Your task to perform on an android device: Open battery settings Image 0: 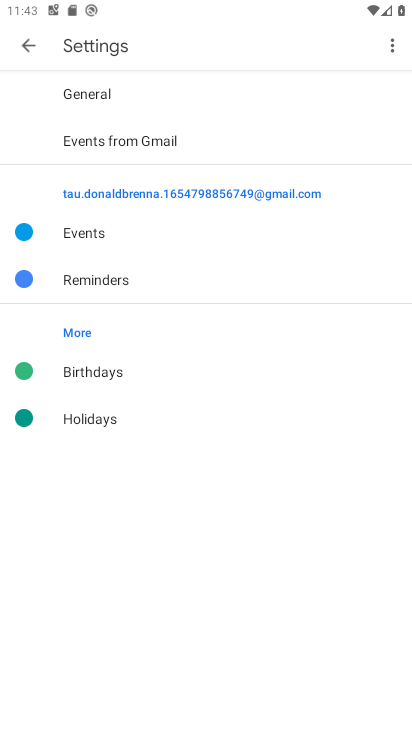
Step 0: press home button
Your task to perform on an android device: Open battery settings Image 1: 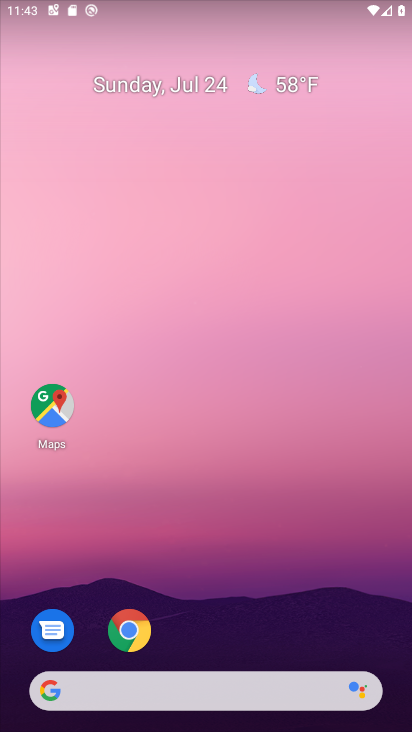
Step 1: drag from (199, 510) to (142, 7)
Your task to perform on an android device: Open battery settings Image 2: 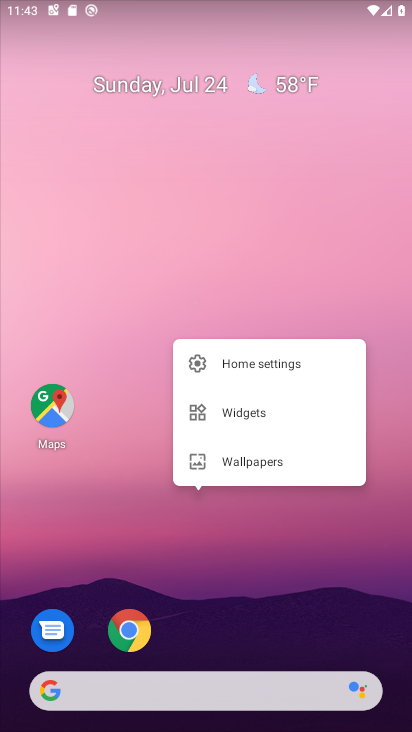
Step 2: click (230, 559)
Your task to perform on an android device: Open battery settings Image 3: 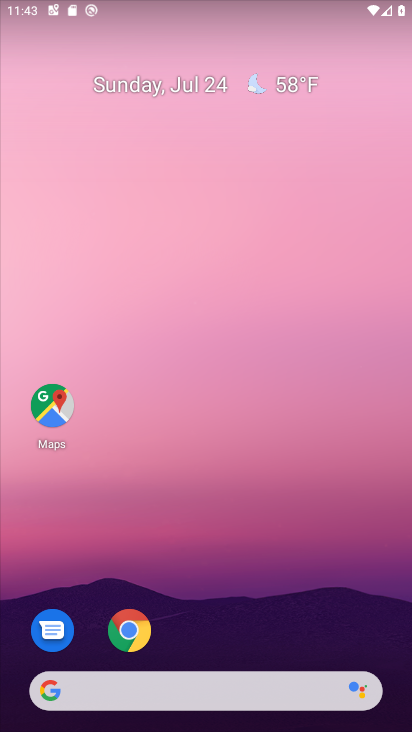
Step 3: drag from (197, 582) to (203, 219)
Your task to perform on an android device: Open battery settings Image 4: 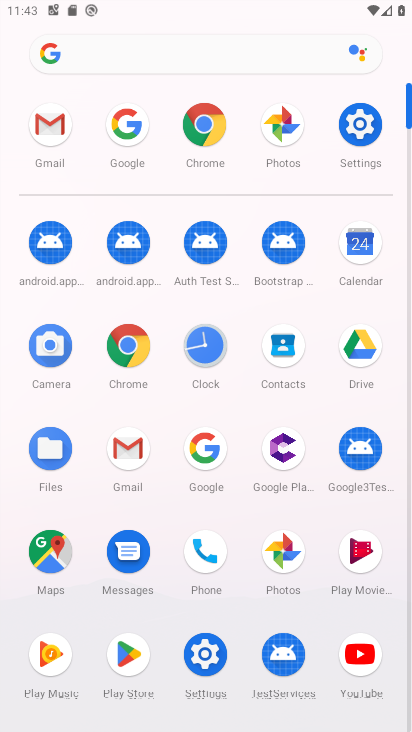
Step 4: click (356, 117)
Your task to perform on an android device: Open battery settings Image 5: 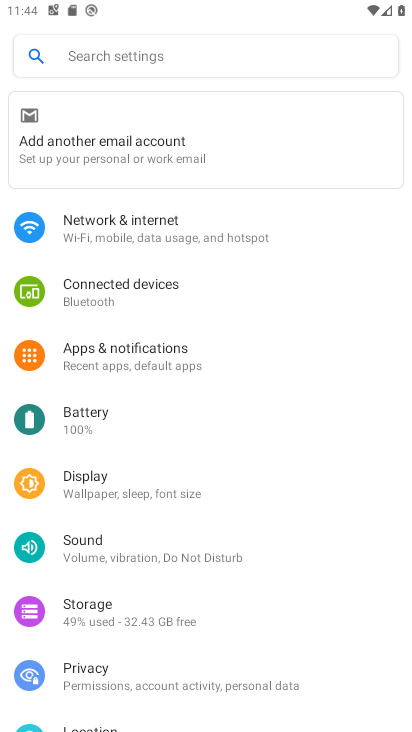
Step 5: click (104, 405)
Your task to perform on an android device: Open battery settings Image 6: 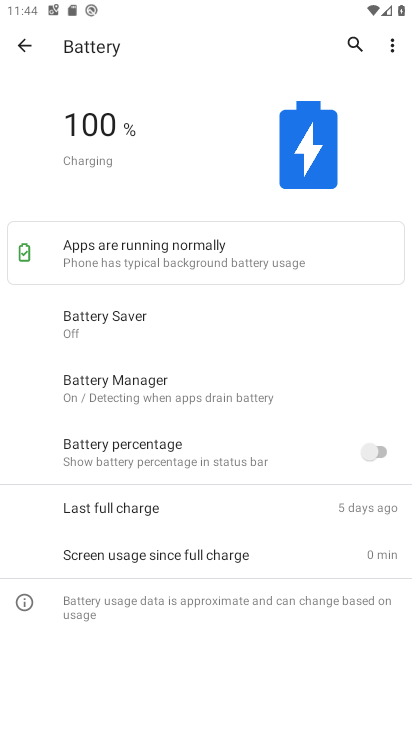
Step 6: task complete